Your task to perform on an android device: turn on wifi Image 0: 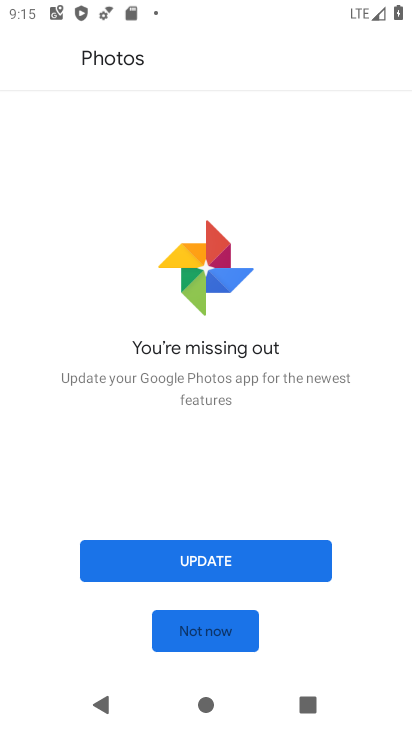
Step 0: press home button
Your task to perform on an android device: turn on wifi Image 1: 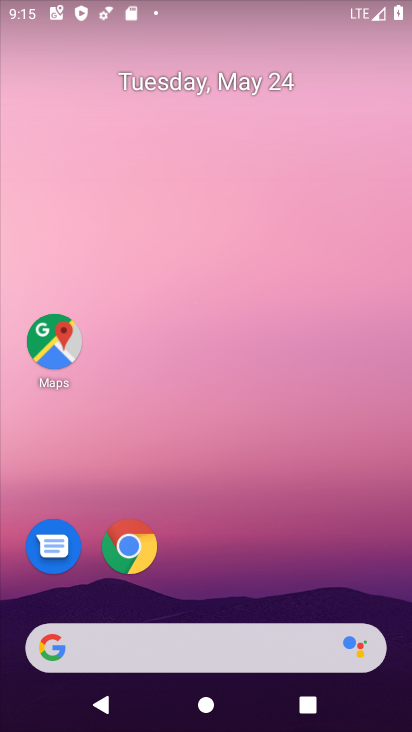
Step 1: drag from (228, 574) to (283, 36)
Your task to perform on an android device: turn on wifi Image 2: 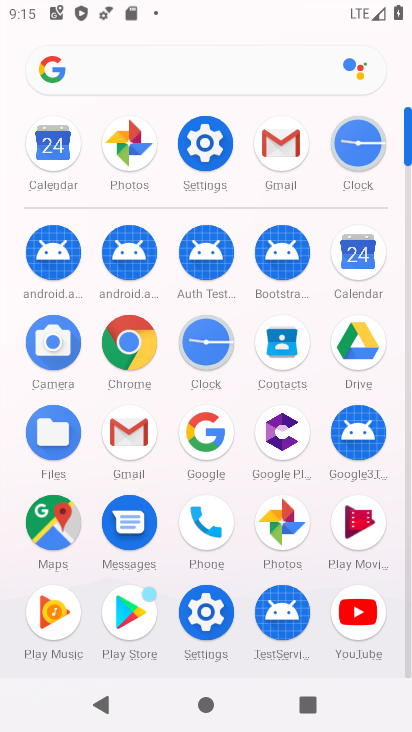
Step 2: click (210, 143)
Your task to perform on an android device: turn on wifi Image 3: 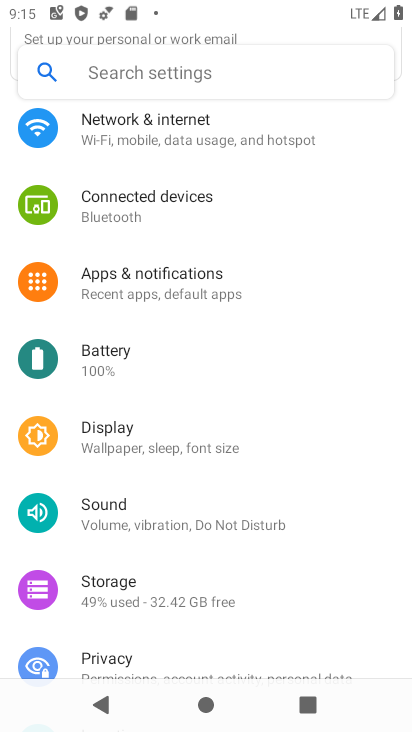
Step 3: drag from (207, 189) to (210, 315)
Your task to perform on an android device: turn on wifi Image 4: 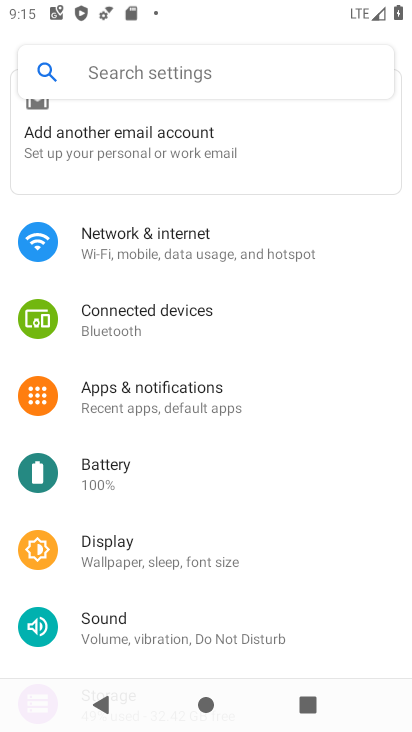
Step 4: click (225, 245)
Your task to perform on an android device: turn on wifi Image 5: 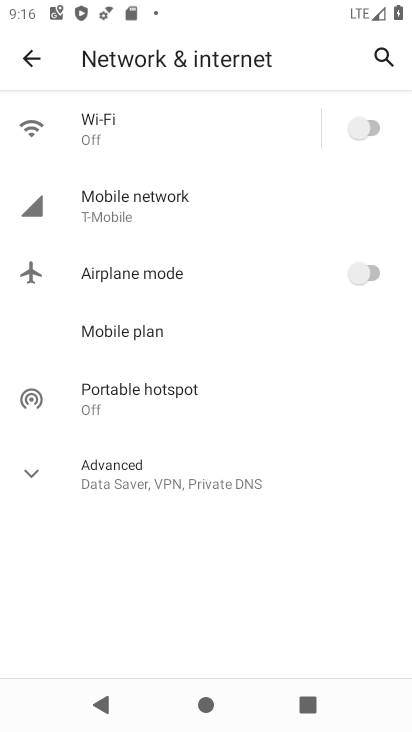
Step 5: click (363, 121)
Your task to perform on an android device: turn on wifi Image 6: 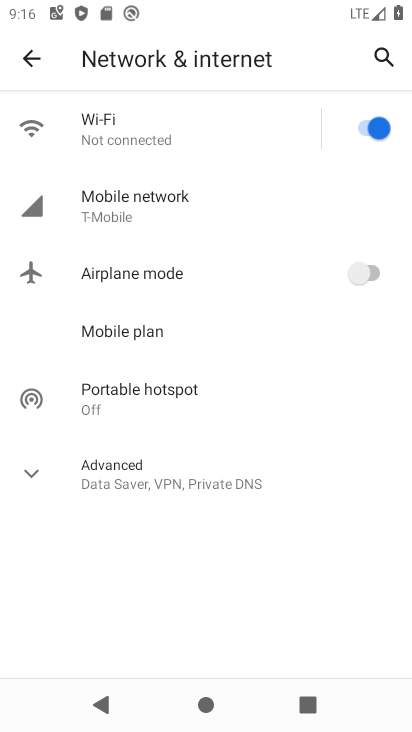
Step 6: task complete